Your task to perform on an android device: Open network settings Image 0: 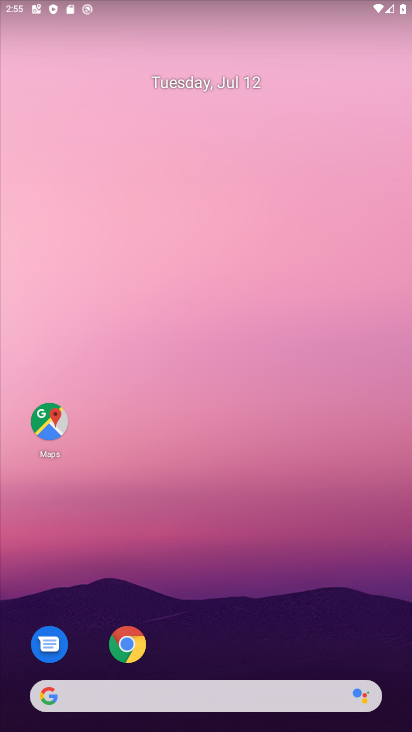
Step 0: drag from (209, 8) to (253, 463)
Your task to perform on an android device: Open network settings Image 1: 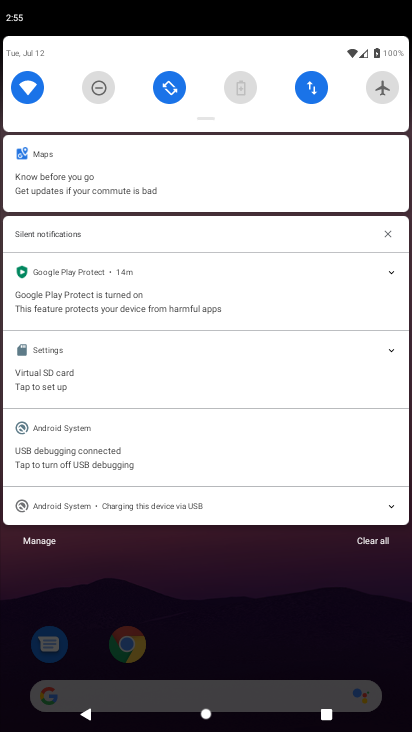
Step 1: click (303, 84)
Your task to perform on an android device: Open network settings Image 2: 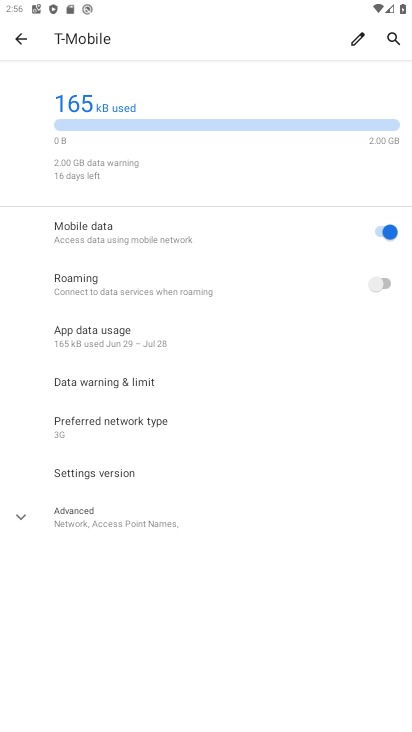
Step 2: task complete